Your task to perform on an android device: Open eBay Image 0: 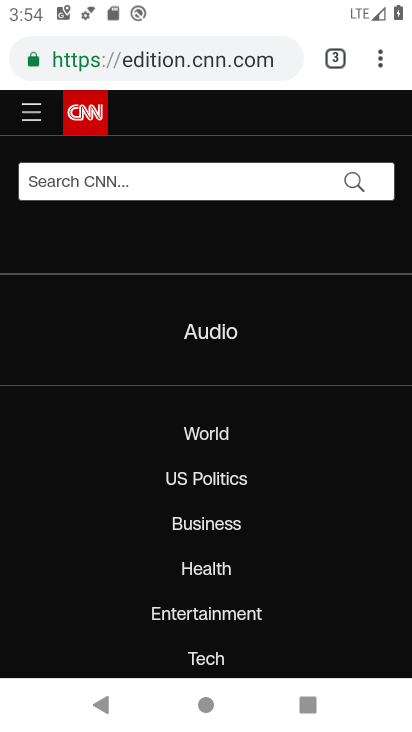
Step 0: press home button
Your task to perform on an android device: Open eBay Image 1: 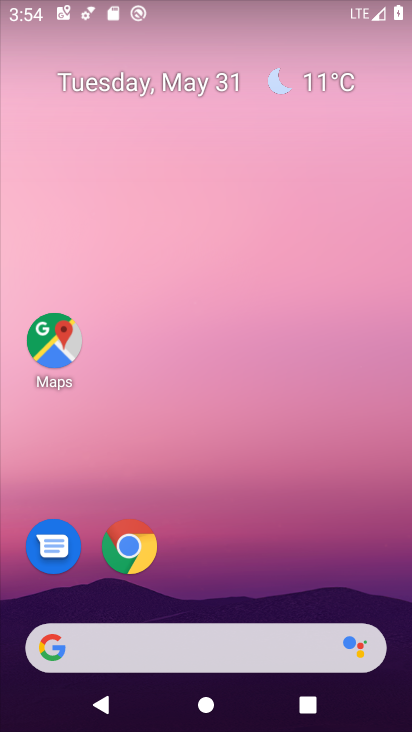
Step 1: drag from (281, 469) to (143, 19)
Your task to perform on an android device: Open eBay Image 2: 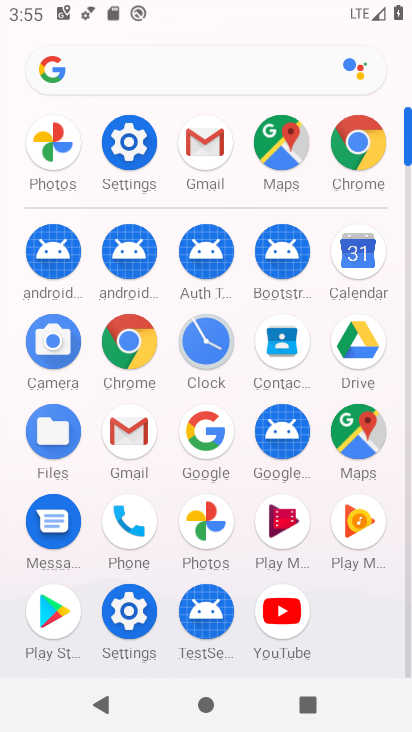
Step 2: click (145, 339)
Your task to perform on an android device: Open eBay Image 3: 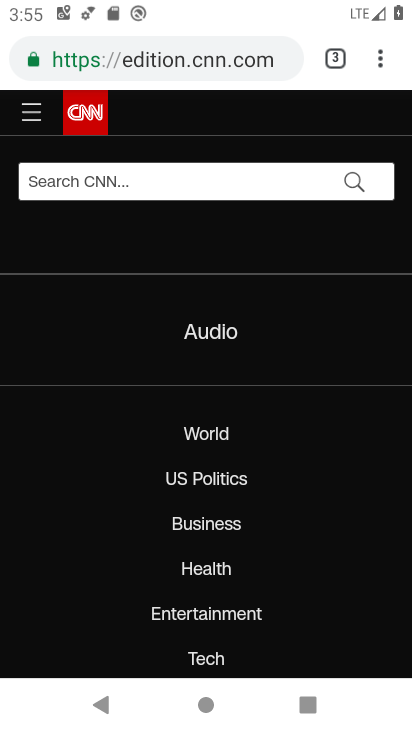
Step 3: click (328, 53)
Your task to perform on an android device: Open eBay Image 4: 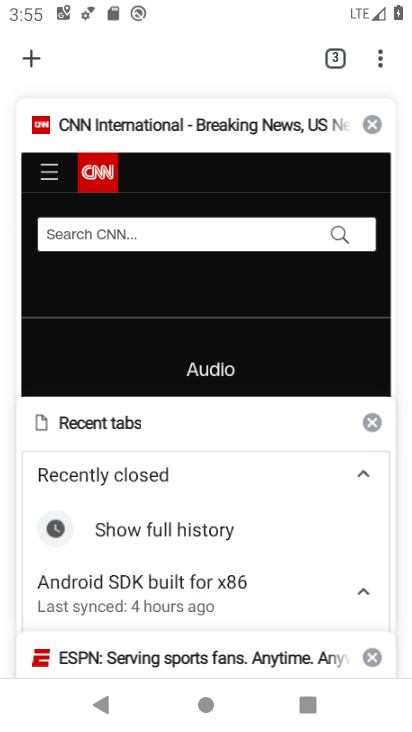
Step 4: click (19, 57)
Your task to perform on an android device: Open eBay Image 5: 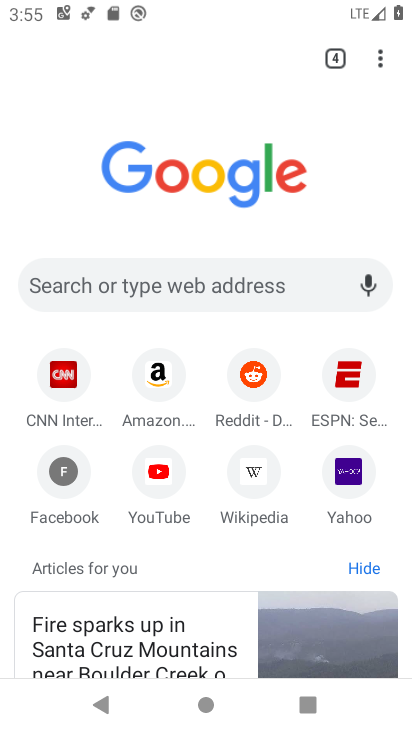
Step 5: click (179, 277)
Your task to perform on an android device: Open eBay Image 6: 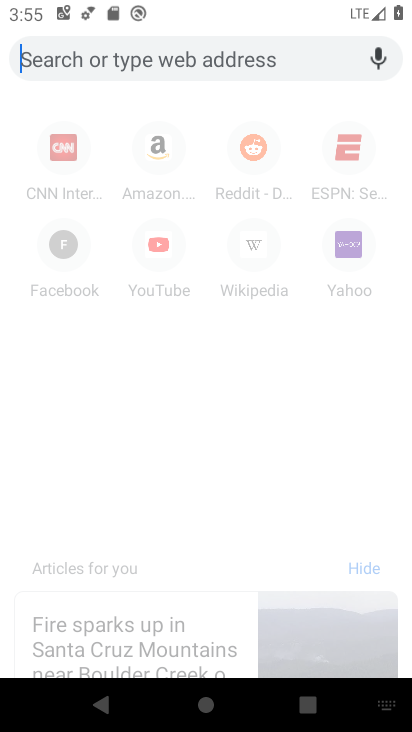
Step 6: type "eBay.com"
Your task to perform on an android device: Open eBay Image 7: 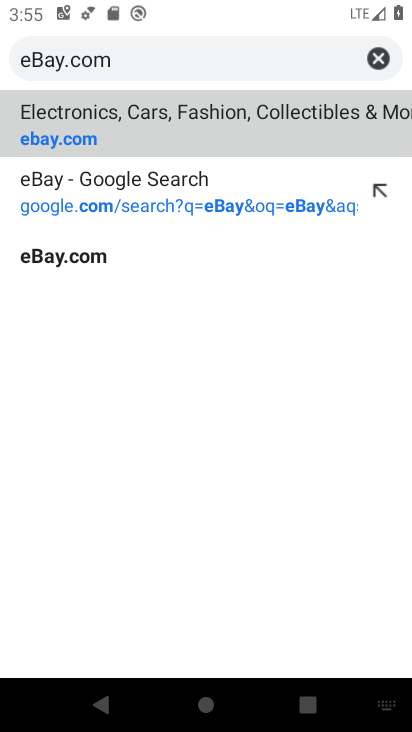
Step 7: click (98, 123)
Your task to perform on an android device: Open eBay Image 8: 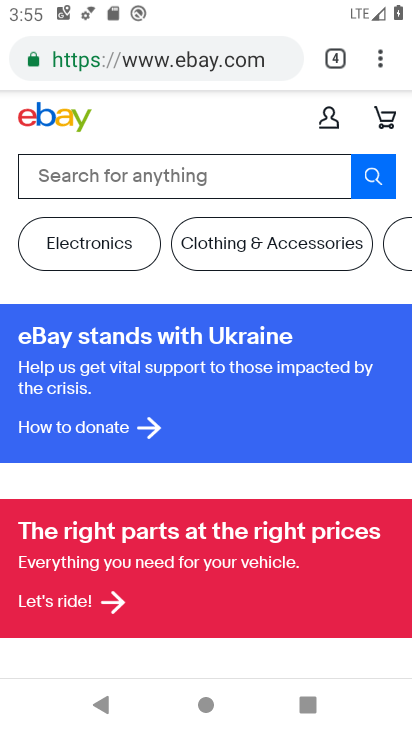
Step 8: task complete